Your task to perform on an android device: What's on my calendar tomorrow? Image 0: 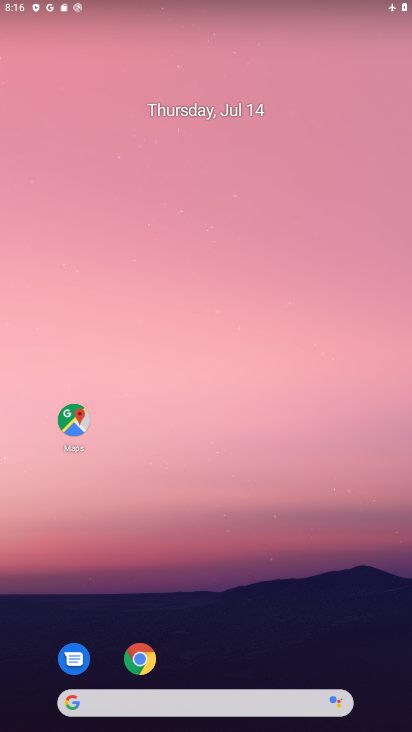
Step 0: drag from (192, 489) to (238, 16)
Your task to perform on an android device: What's on my calendar tomorrow? Image 1: 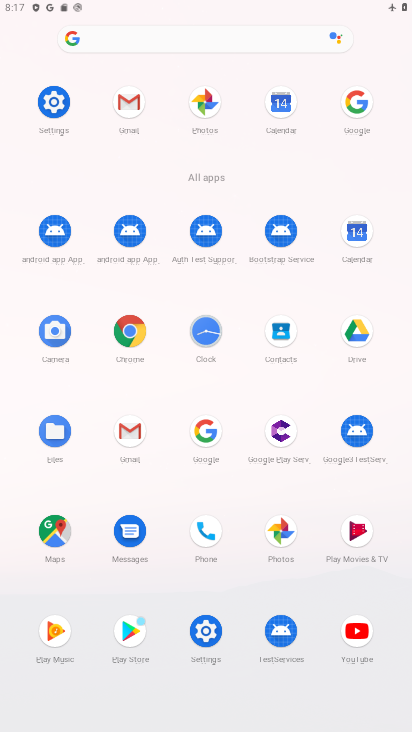
Step 1: click (275, 127)
Your task to perform on an android device: What's on my calendar tomorrow? Image 2: 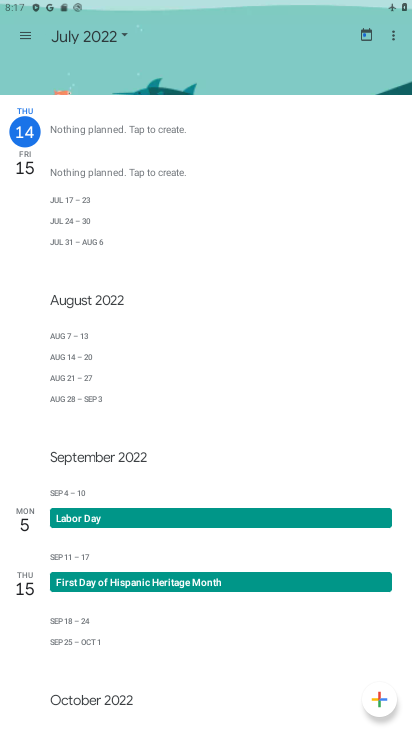
Step 2: task complete